Your task to perform on an android device: Open Chrome and go to the settings page Image 0: 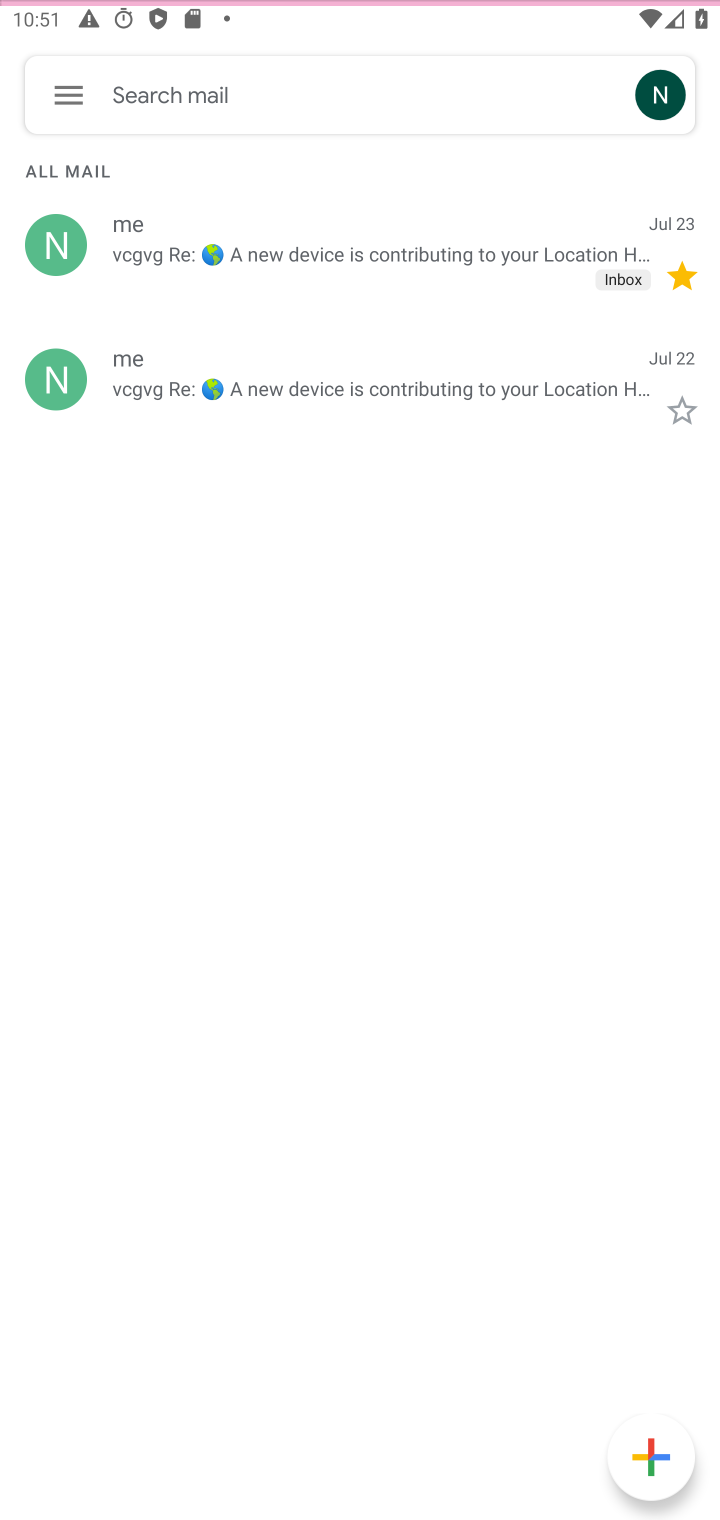
Step 0: press home button
Your task to perform on an android device: Open Chrome and go to the settings page Image 1: 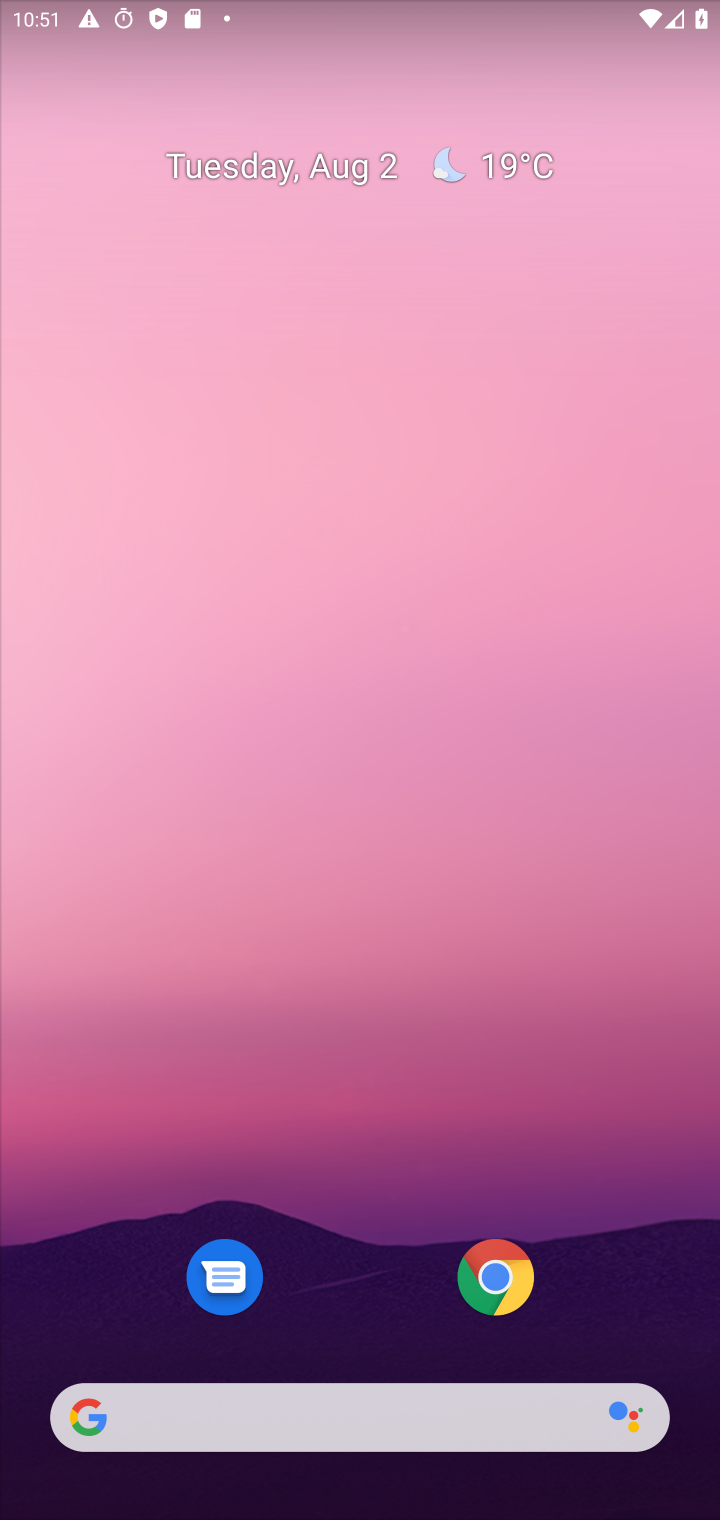
Step 1: click (474, 1285)
Your task to perform on an android device: Open Chrome and go to the settings page Image 2: 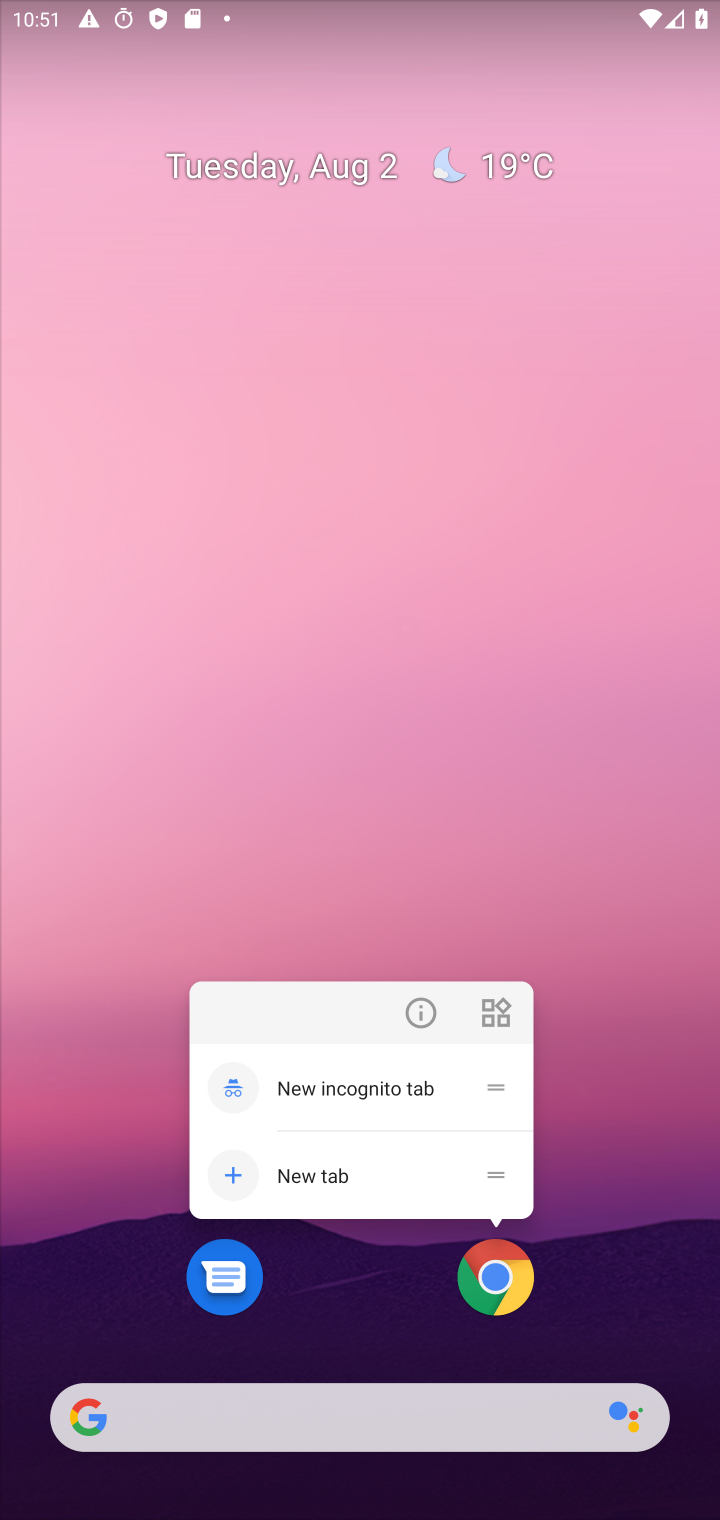
Step 2: click (476, 1283)
Your task to perform on an android device: Open Chrome and go to the settings page Image 3: 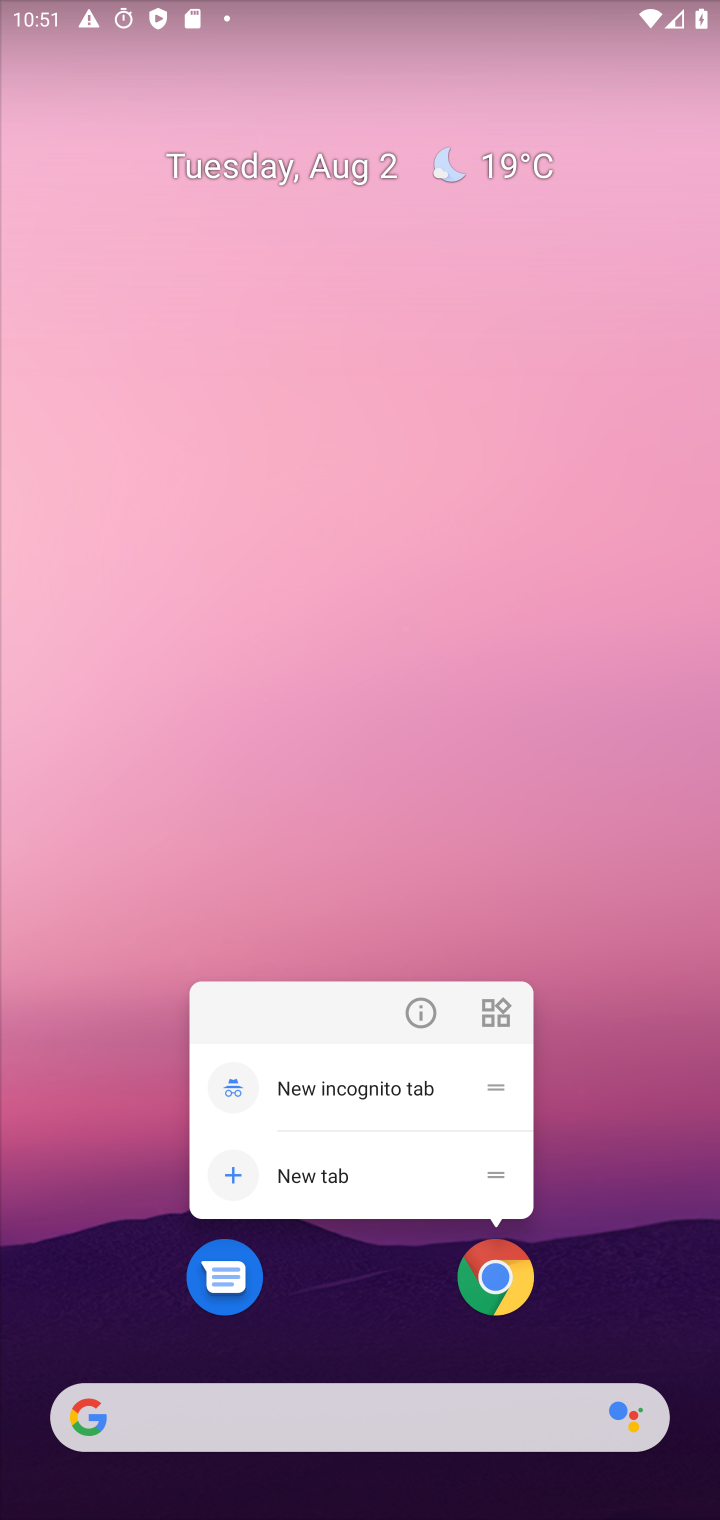
Step 3: click (478, 1274)
Your task to perform on an android device: Open Chrome and go to the settings page Image 4: 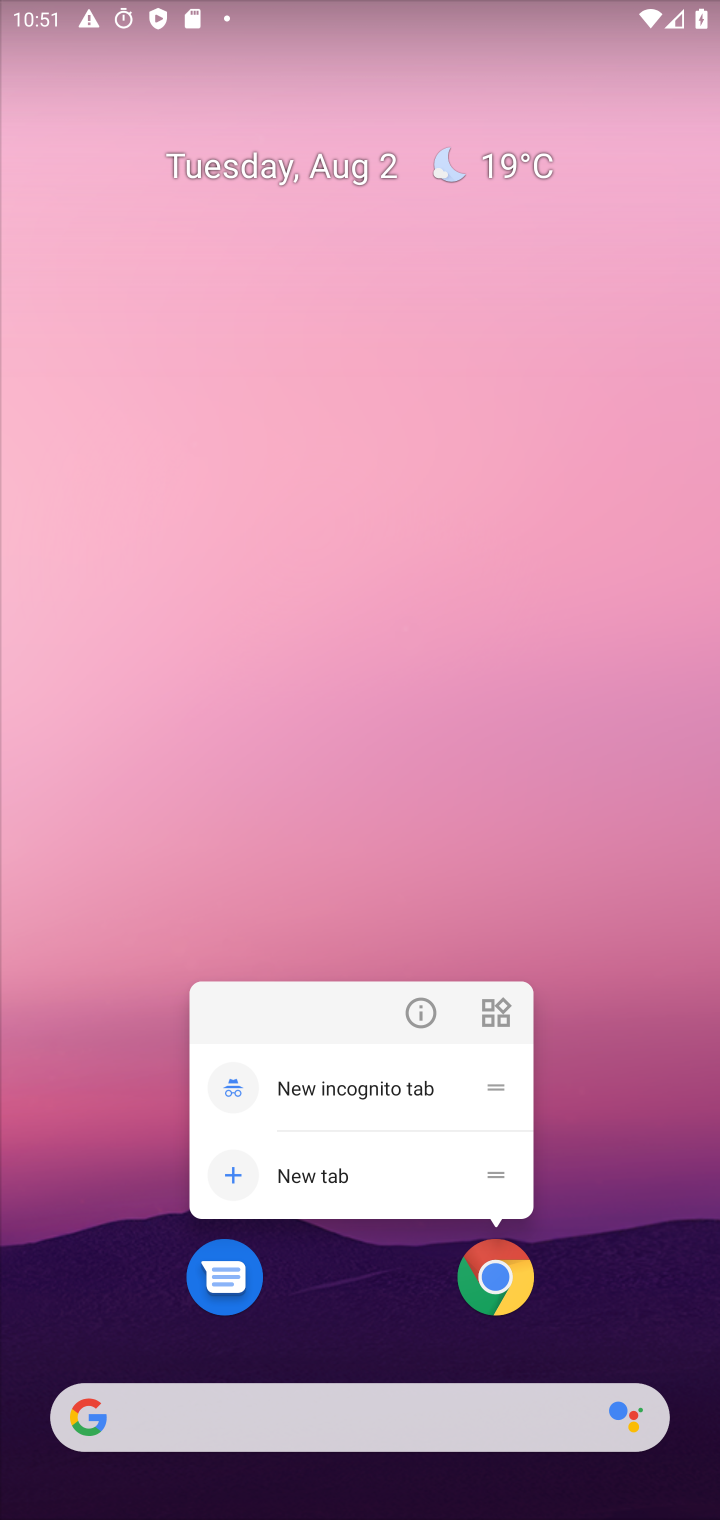
Step 4: click (514, 1306)
Your task to perform on an android device: Open Chrome and go to the settings page Image 5: 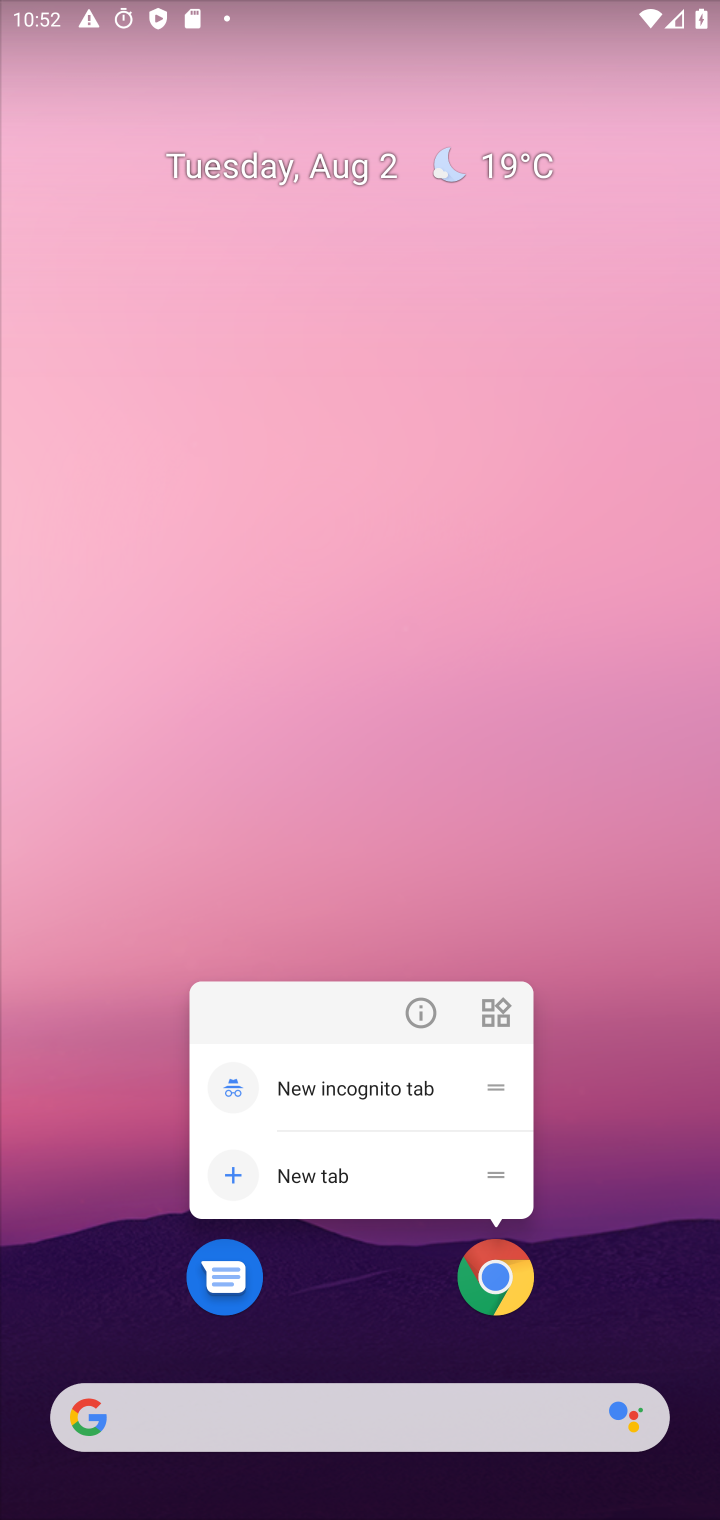
Step 5: click (497, 1292)
Your task to perform on an android device: Open Chrome and go to the settings page Image 6: 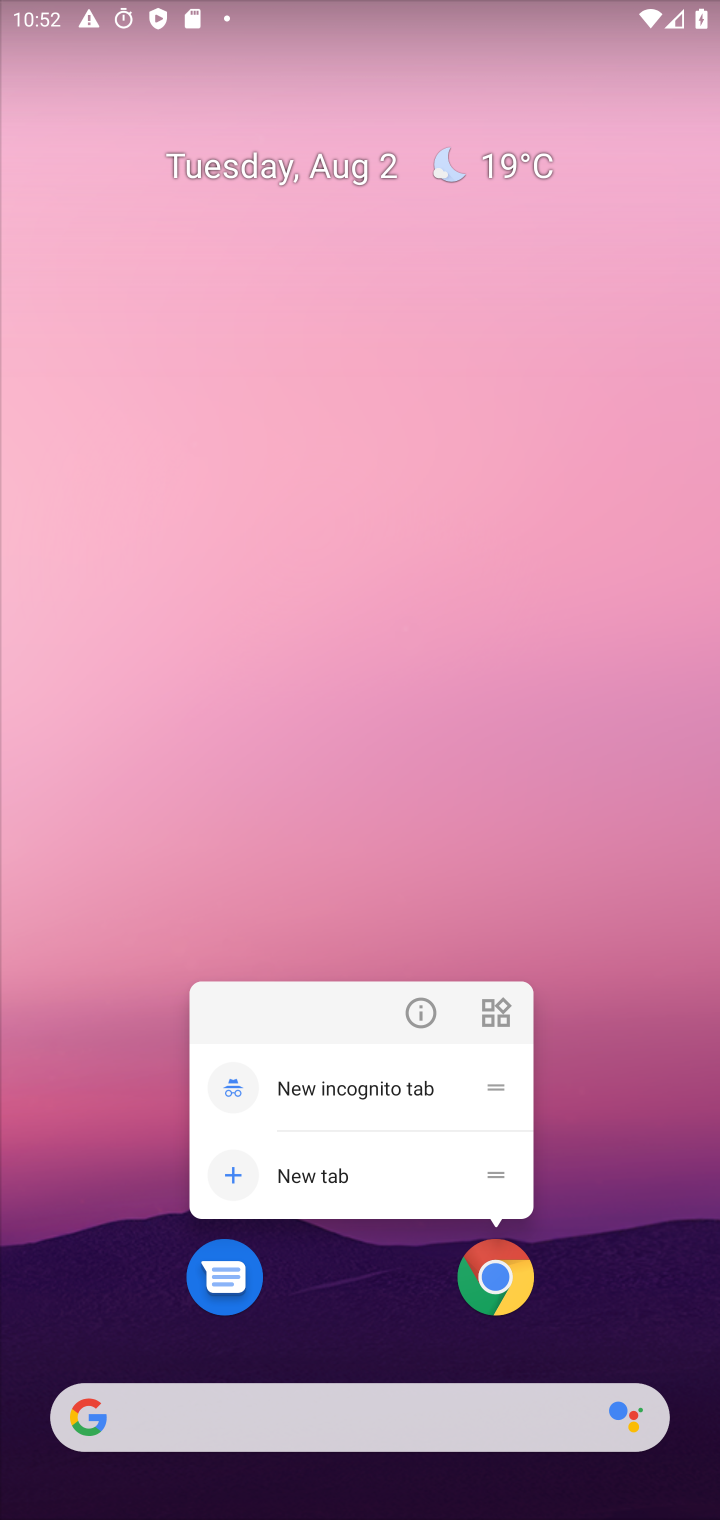
Step 6: click (495, 1292)
Your task to perform on an android device: Open Chrome and go to the settings page Image 7: 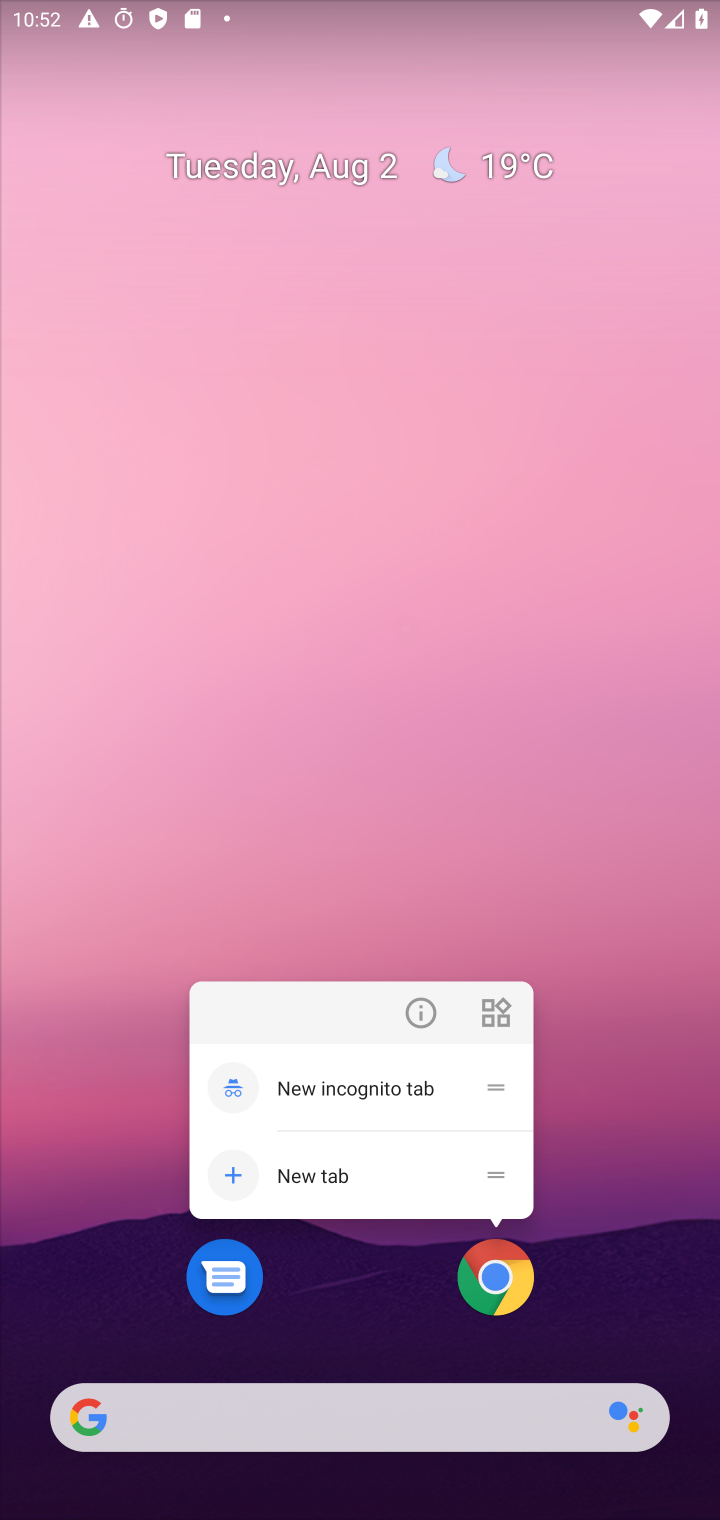
Step 7: click (495, 1292)
Your task to perform on an android device: Open Chrome and go to the settings page Image 8: 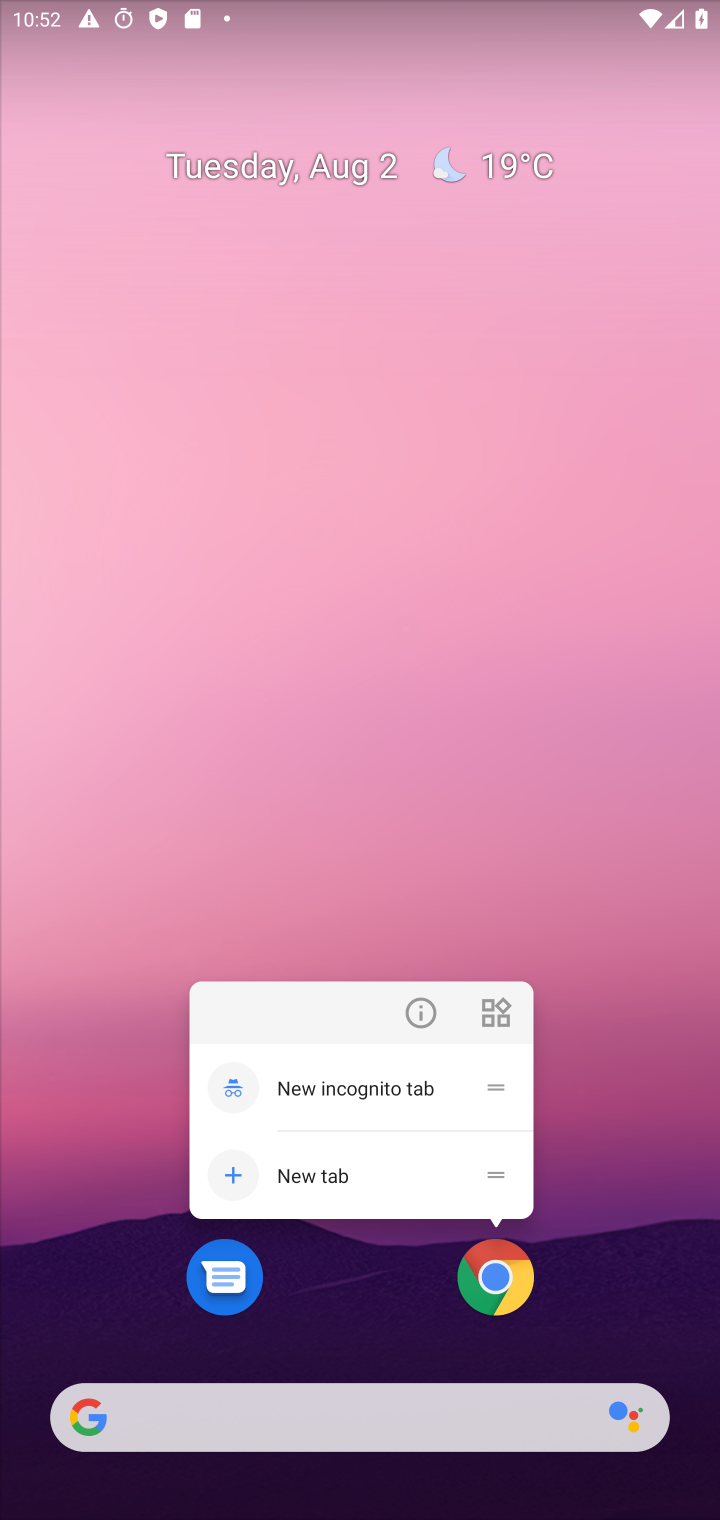
Step 8: click (494, 1280)
Your task to perform on an android device: Open Chrome and go to the settings page Image 9: 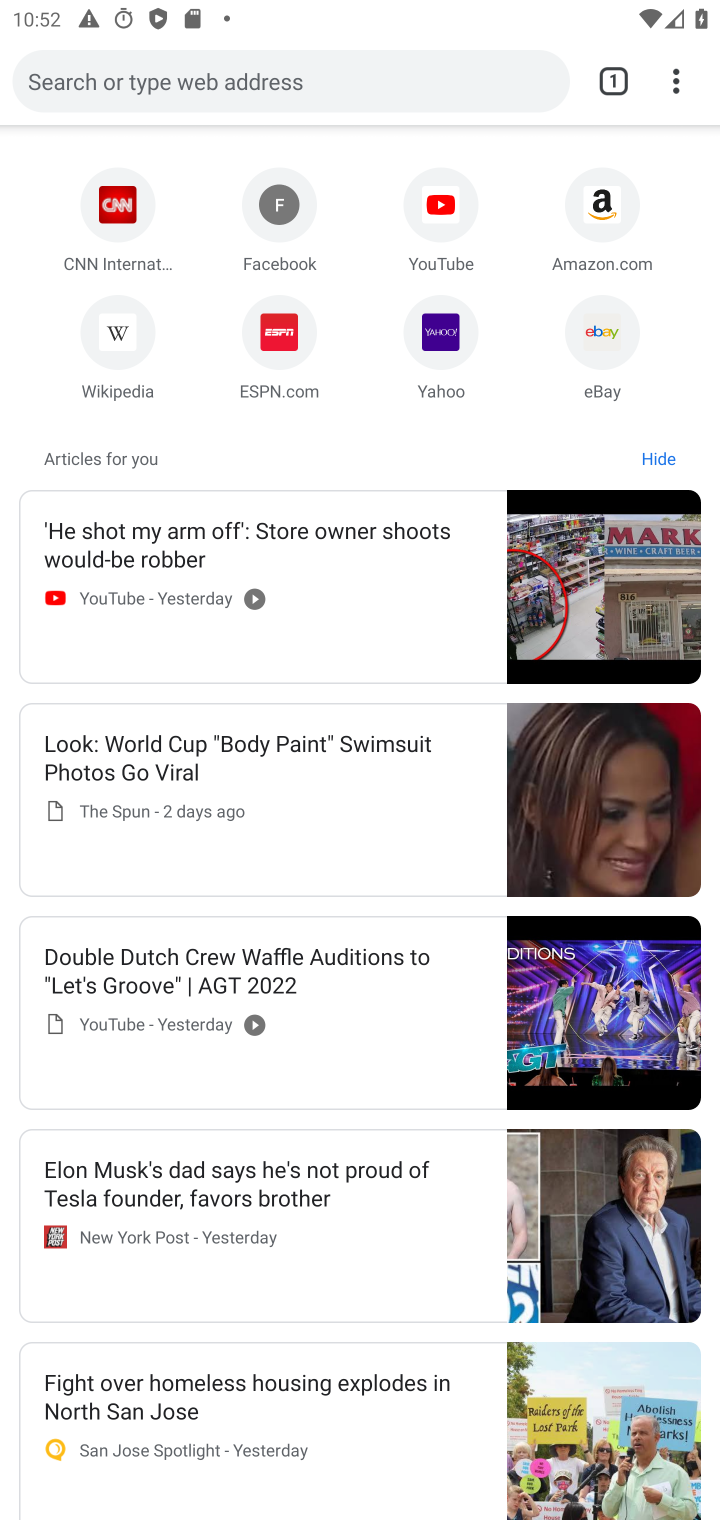
Step 9: task complete